Your task to perform on an android device: Do I have any events tomorrow? Image 0: 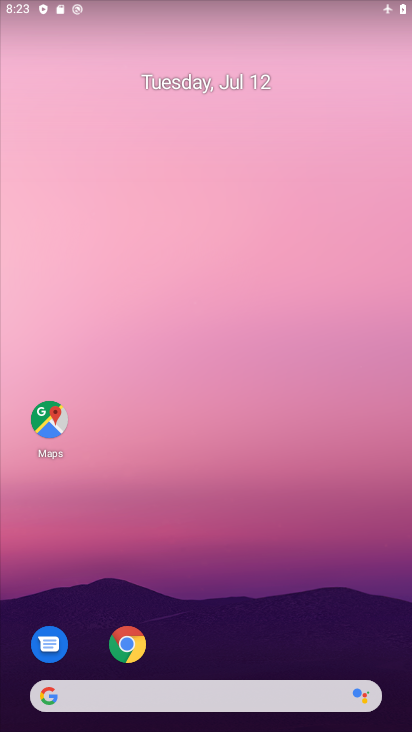
Step 0: drag from (218, 622) to (158, 169)
Your task to perform on an android device: Do I have any events tomorrow? Image 1: 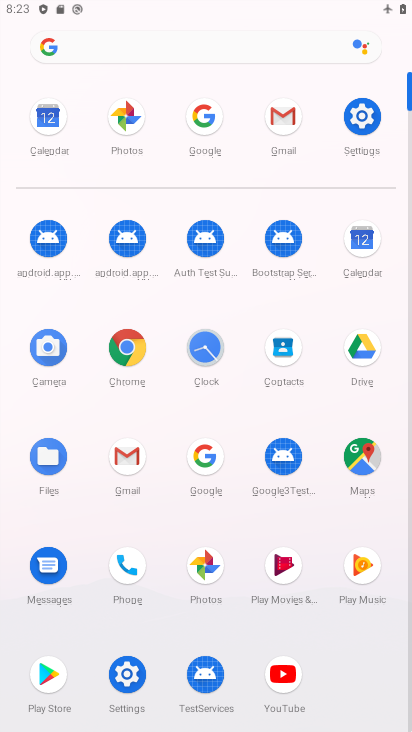
Step 1: click (354, 259)
Your task to perform on an android device: Do I have any events tomorrow? Image 2: 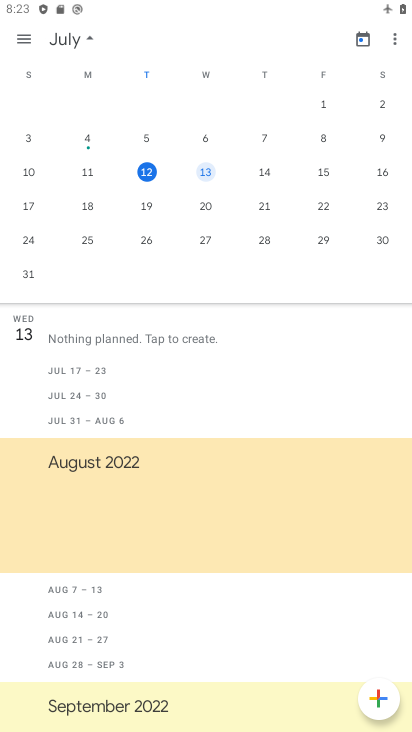
Step 2: click (203, 175)
Your task to perform on an android device: Do I have any events tomorrow? Image 3: 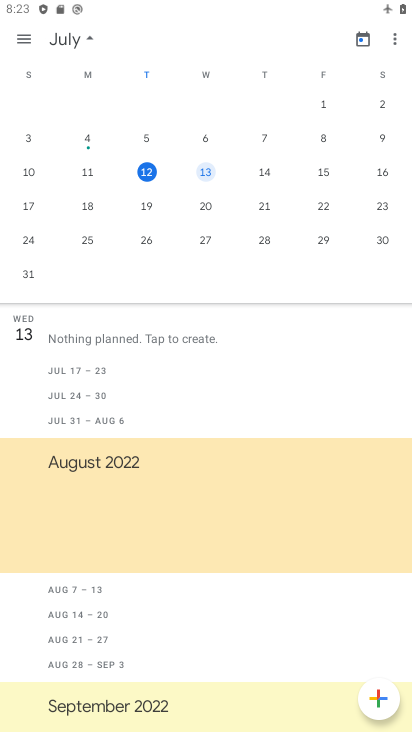
Step 3: task complete